Your task to perform on an android device: Go to notification settings Image 0: 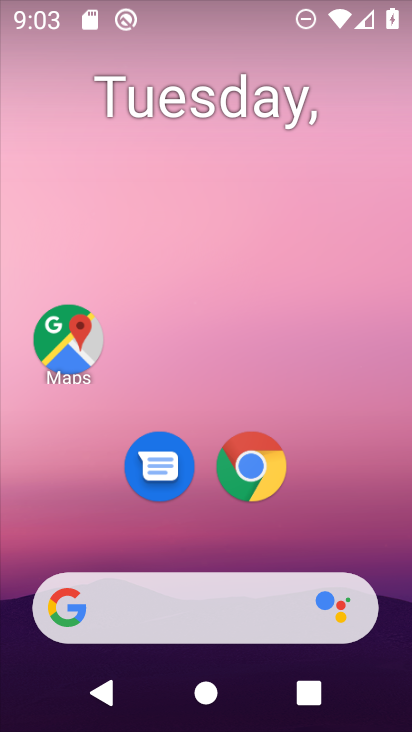
Step 0: drag from (202, 548) to (200, 2)
Your task to perform on an android device: Go to notification settings Image 1: 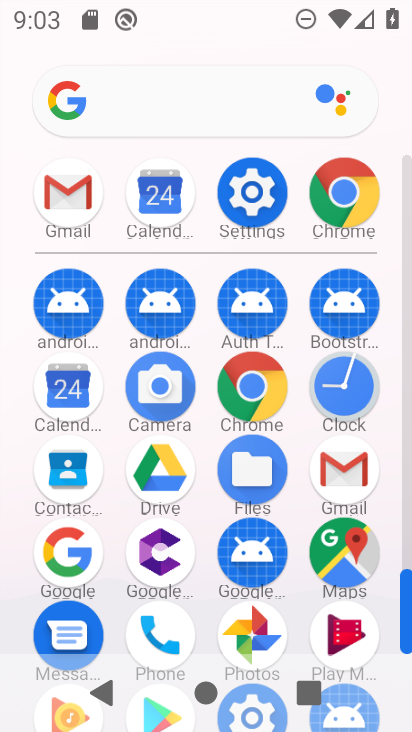
Step 1: click (263, 212)
Your task to perform on an android device: Go to notification settings Image 2: 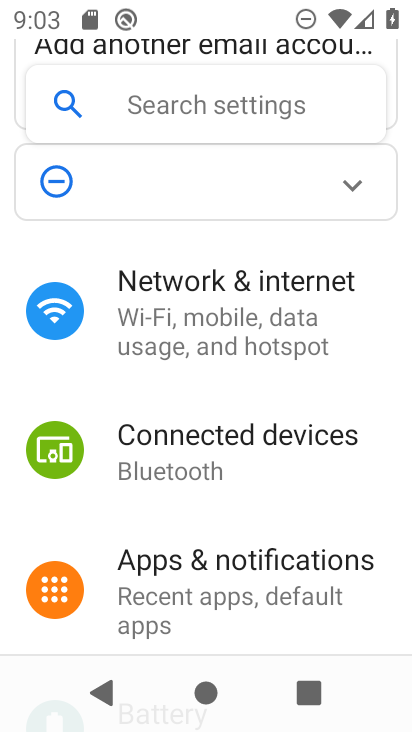
Step 2: click (231, 570)
Your task to perform on an android device: Go to notification settings Image 3: 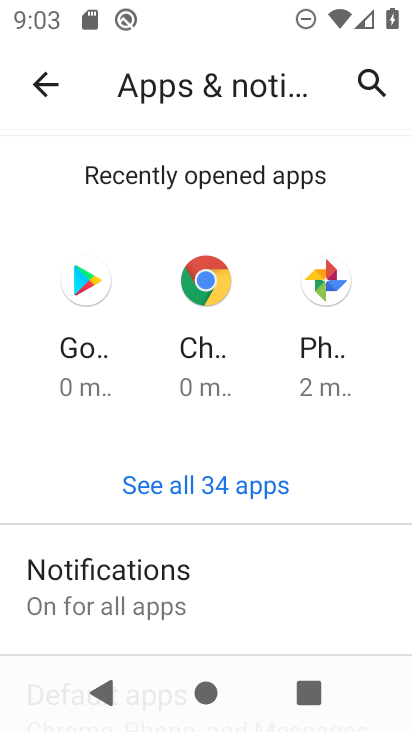
Step 3: click (165, 582)
Your task to perform on an android device: Go to notification settings Image 4: 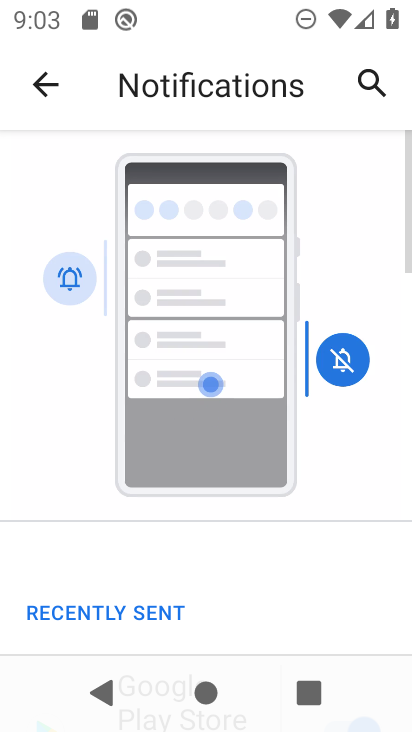
Step 4: task complete